Your task to perform on an android device: Open the web browser Image 0: 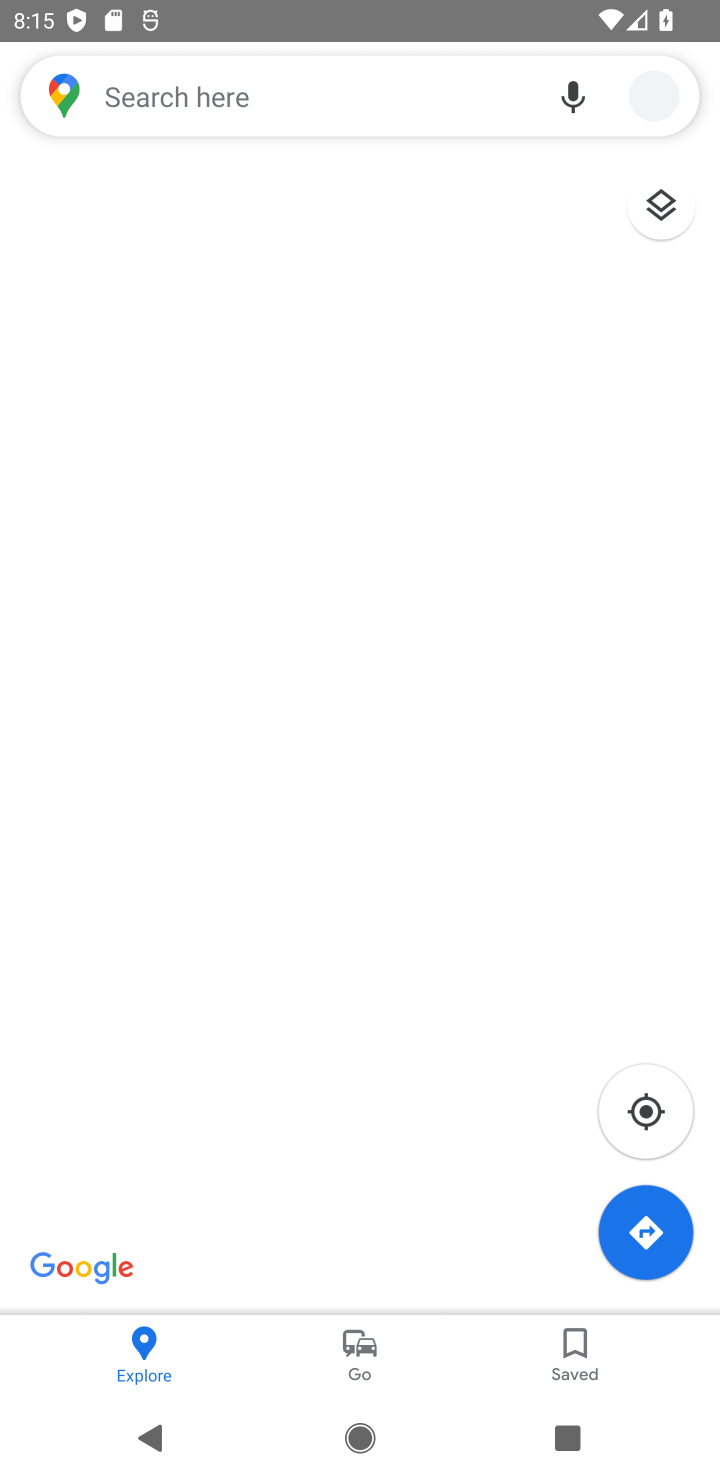
Step 0: press home button
Your task to perform on an android device: Open the web browser Image 1: 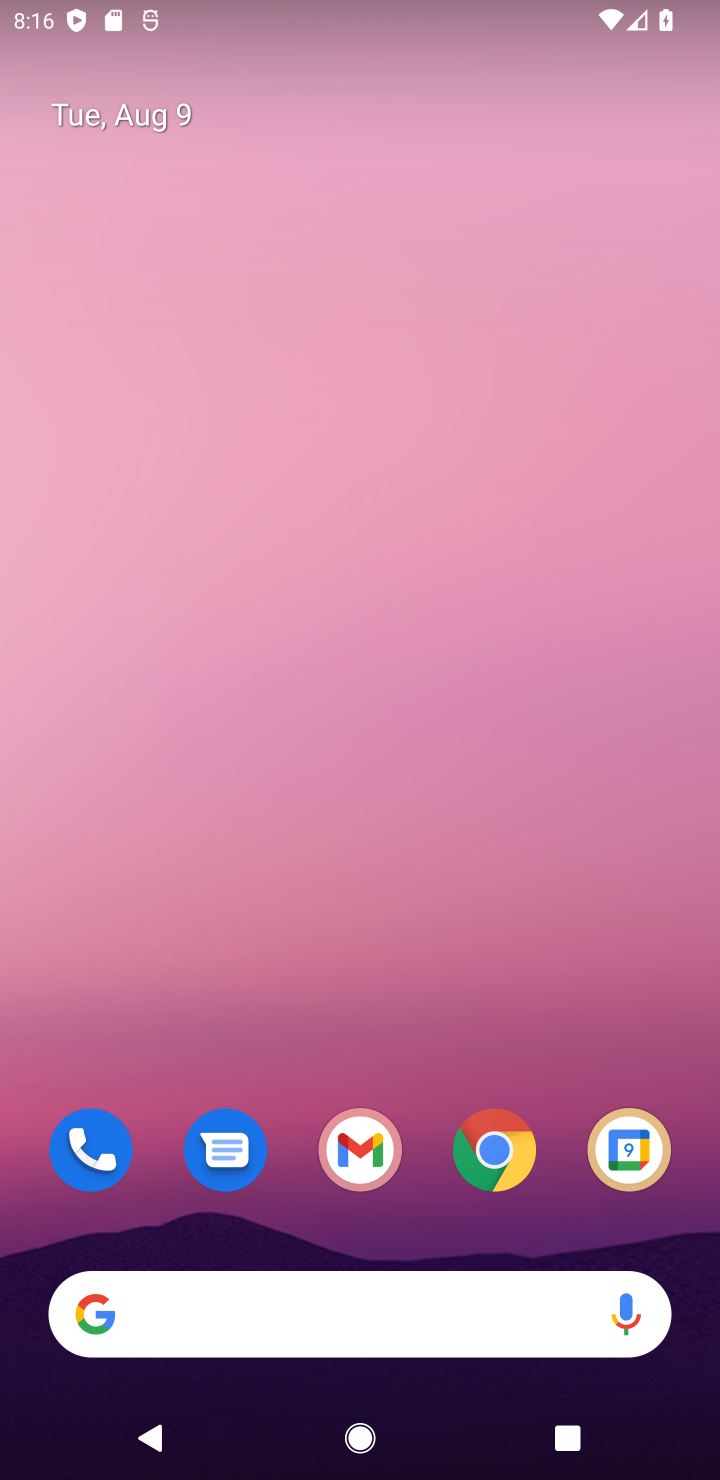
Step 1: click (491, 1164)
Your task to perform on an android device: Open the web browser Image 2: 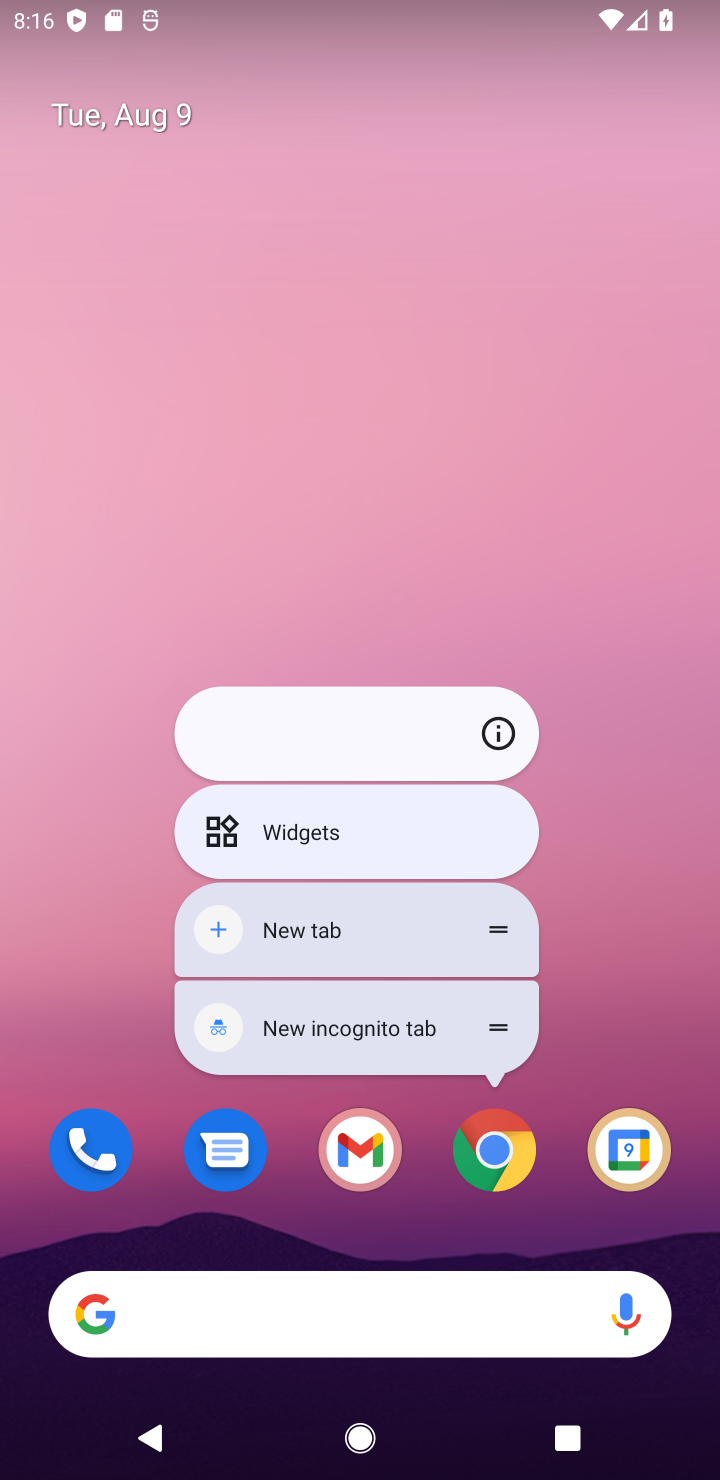
Step 2: click (491, 1171)
Your task to perform on an android device: Open the web browser Image 3: 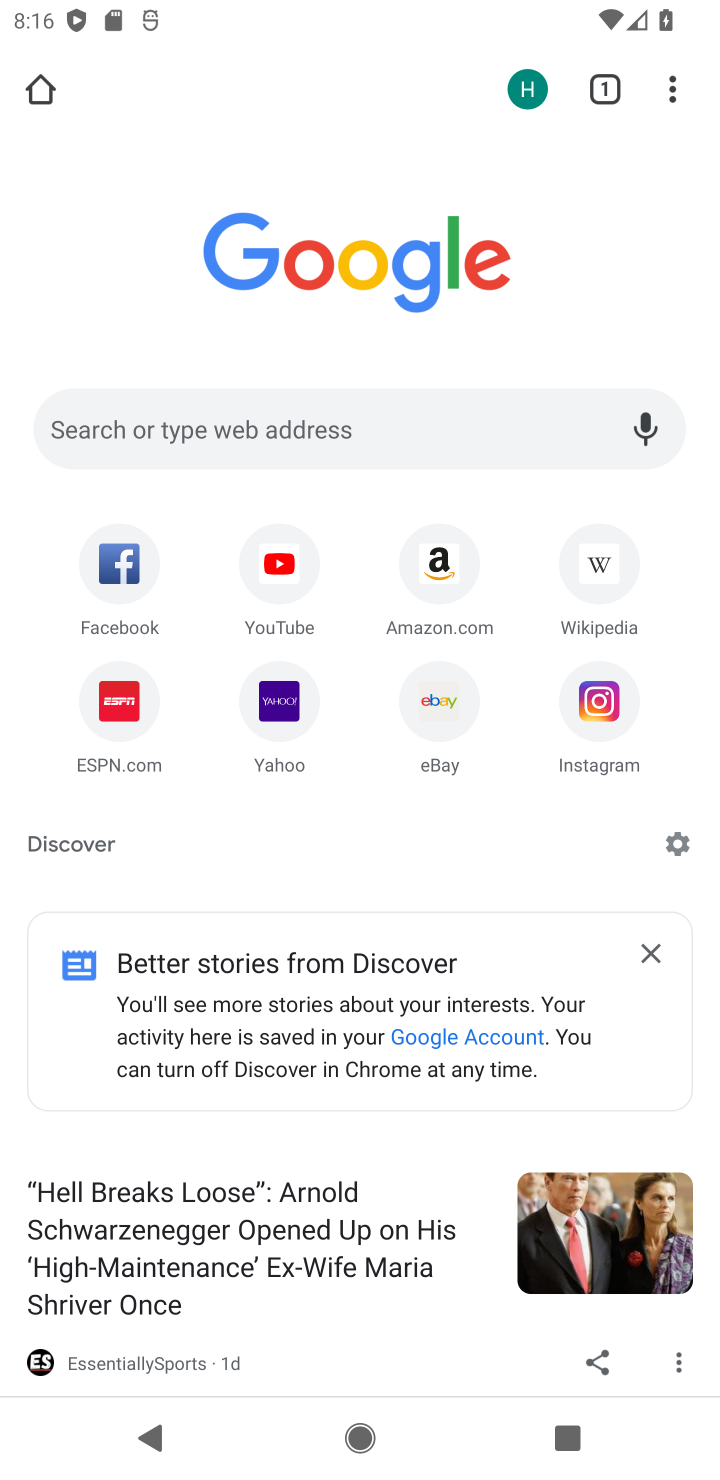
Step 3: task complete